Your task to perform on an android device: toggle airplane mode Image 0: 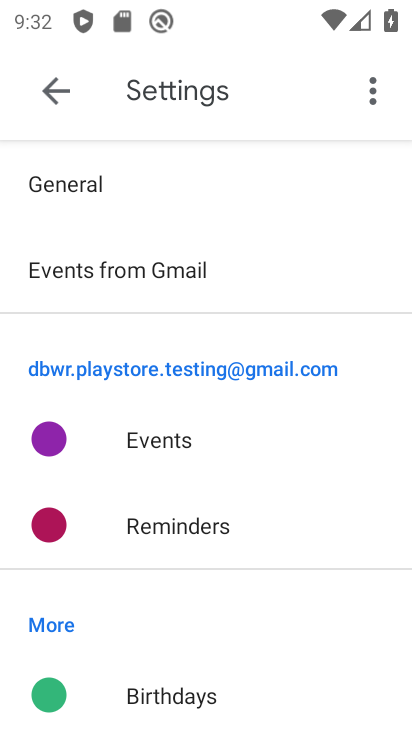
Step 0: drag from (238, 19) to (272, 551)
Your task to perform on an android device: toggle airplane mode Image 1: 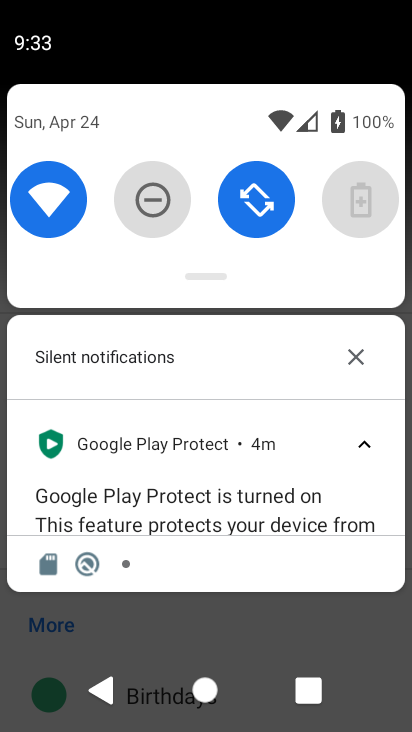
Step 1: drag from (210, 141) to (177, 568)
Your task to perform on an android device: toggle airplane mode Image 2: 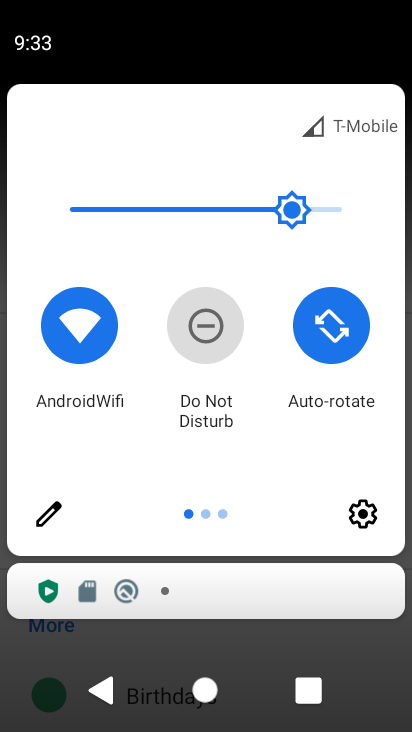
Step 2: click (343, 512)
Your task to perform on an android device: toggle airplane mode Image 3: 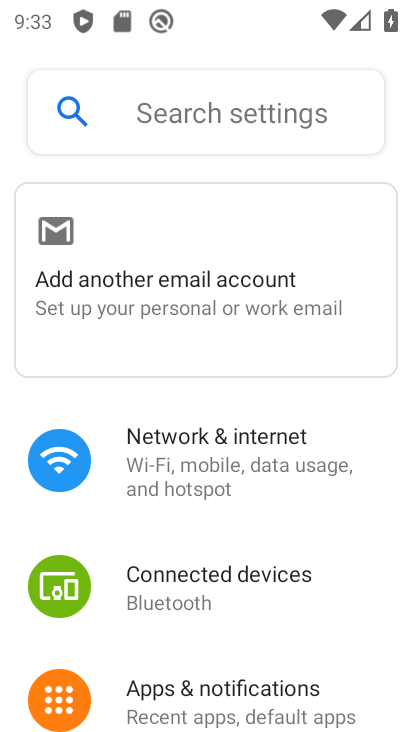
Step 3: click (187, 472)
Your task to perform on an android device: toggle airplane mode Image 4: 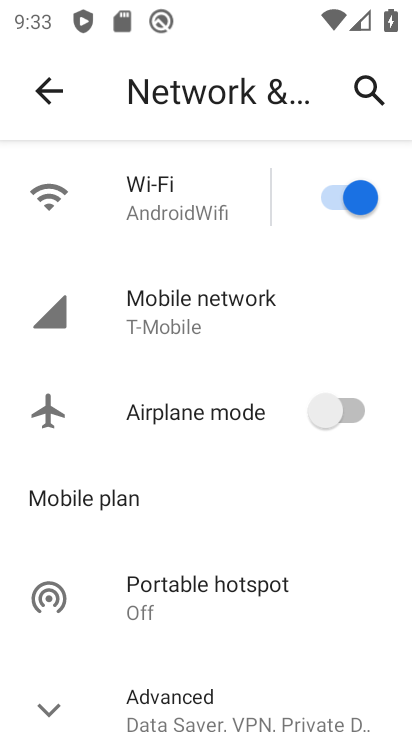
Step 4: click (346, 411)
Your task to perform on an android device: toggle airplane mode Image 5: 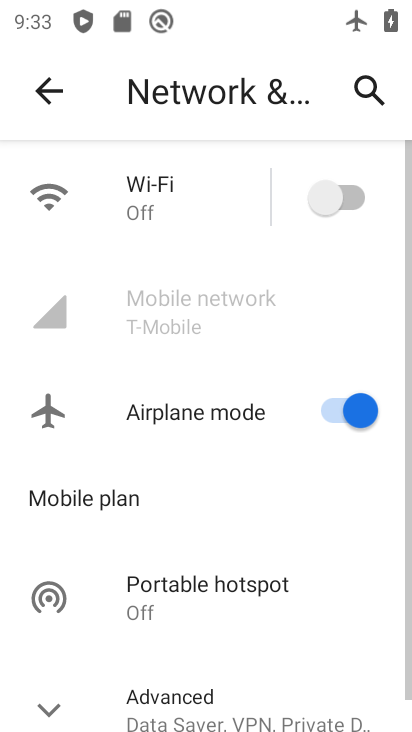
Step 5: click (346, 411)
Your task to perform on an android device: toggle airplane mode Image 6: 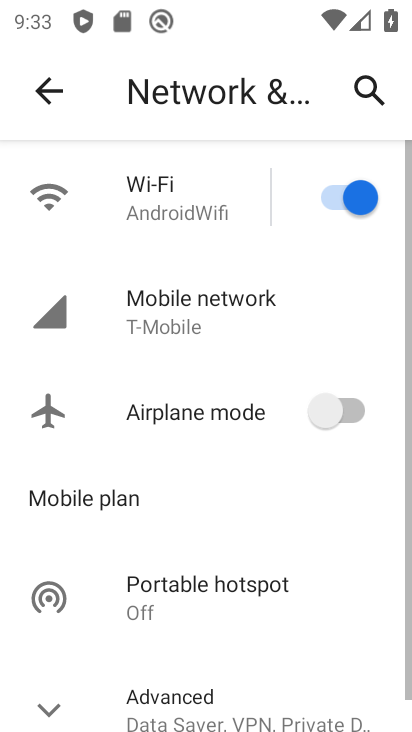
Step 6: task complete